Your task to perform on an android device: Show me the alarms in the clock app Image 0: 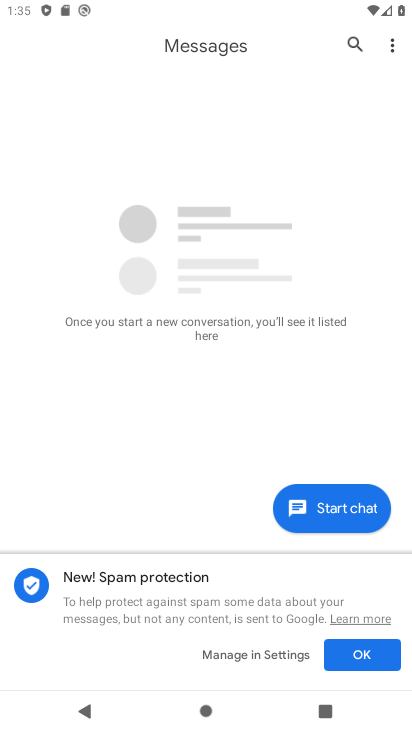
Step 0: drag from (130, 6) to (124, 398)
Your task to perform on an android device: Show me the alarms in the clock app Image 1: 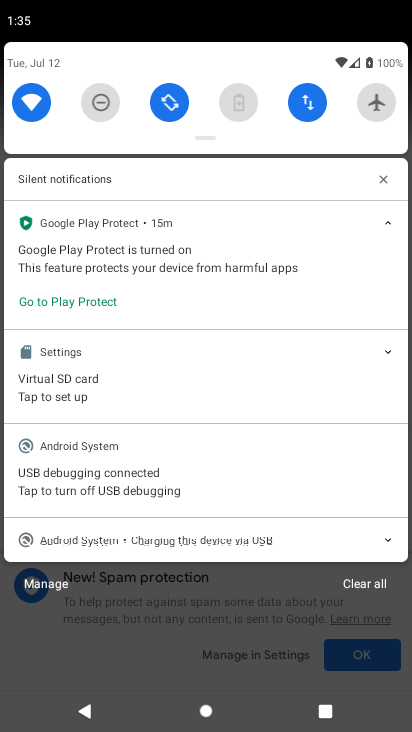
Step 1: press home button
Your task to perform on an android device: Show me the alarms in the clock app Image 2: 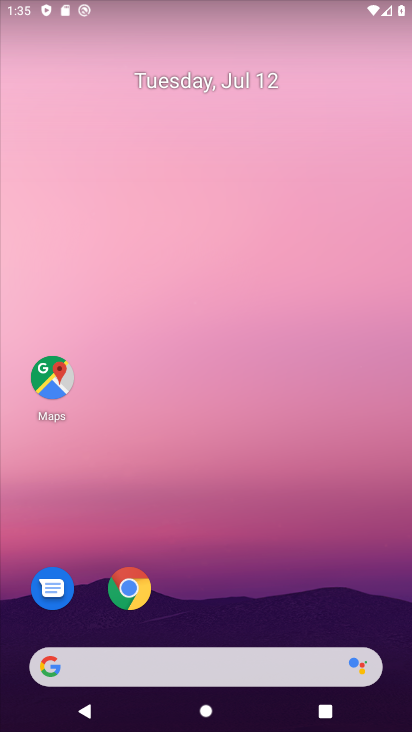
Step 2: drag from (205, 591) to (120, 32)
Your task to perform on an android device: Show me the alarms in the clock app Image 3: 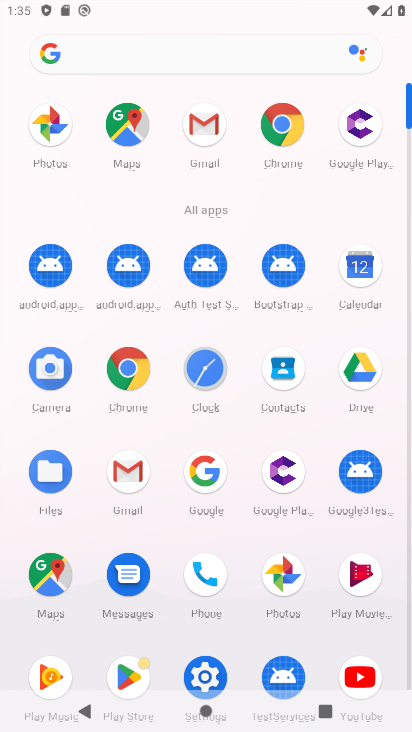
Step 3: click (193, 368)
Your task to perform on an android device: Show me the alarms in the clock app Image 4: 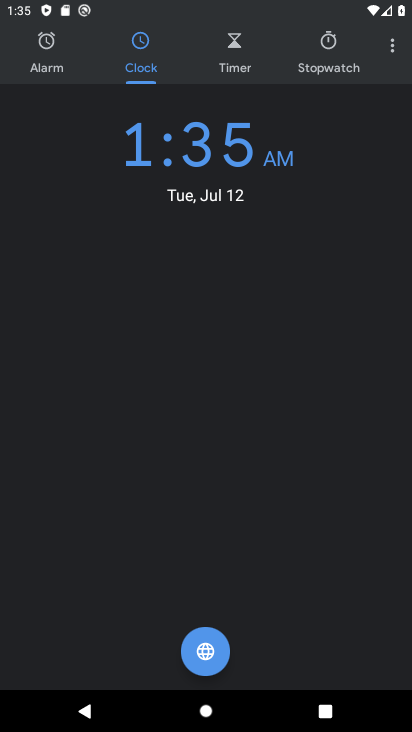
Step 4: click (51, 33)
Your task to perform on an android device: Show me the alarms in the clock app Image 5: 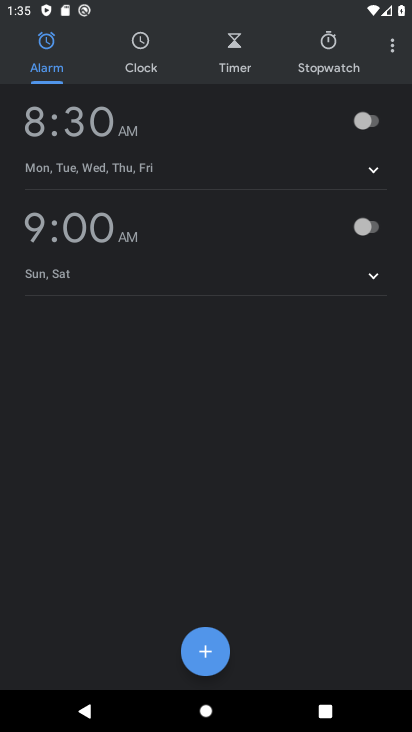
Step 5: task complete